Your task to perform on an android device: turn on airplane mode Image 0: 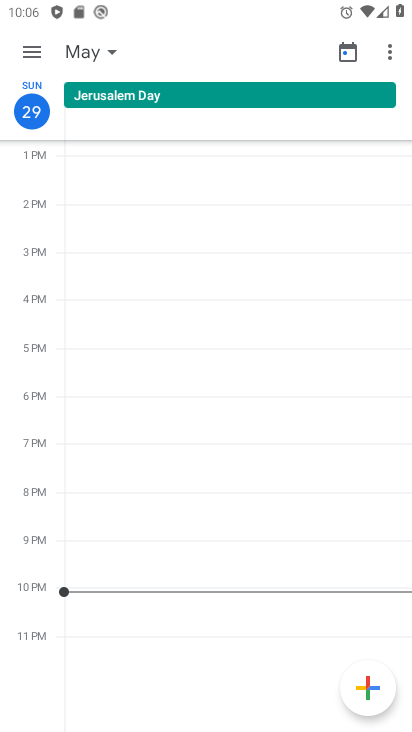
Step 0: press home button
Your task to perform on an android device: turn on airplane mode Image 1: 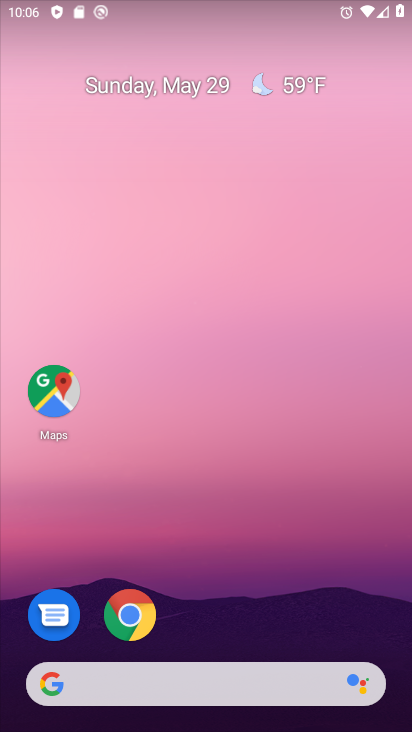
Step 1: drag from (224, 553) to (206, 193)
Your task to perform on an android device: turn on airplane mode Image 2: 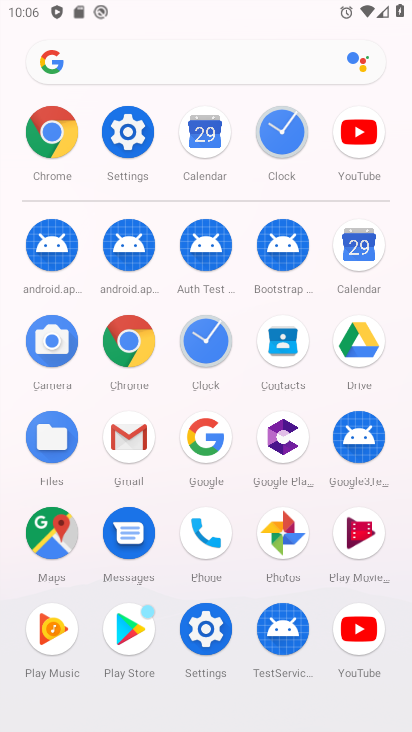
Step 2: click (131, 143)
Your task to perform on an android device: turn on airplane mode Image 3: 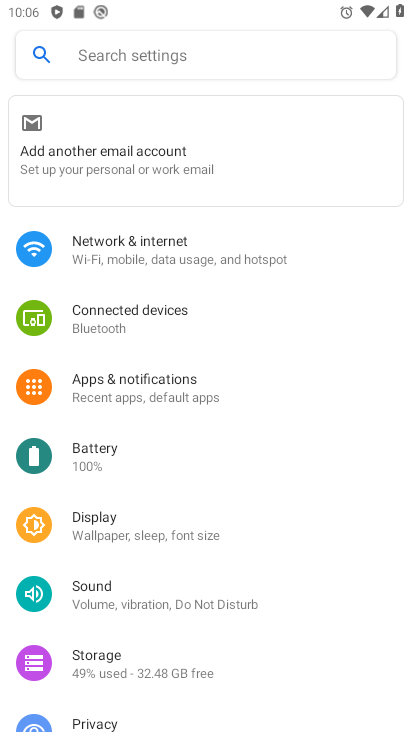
Step 3: click (127, 270)
Your task to perform on an android device: turn on airplane mode Image 4: 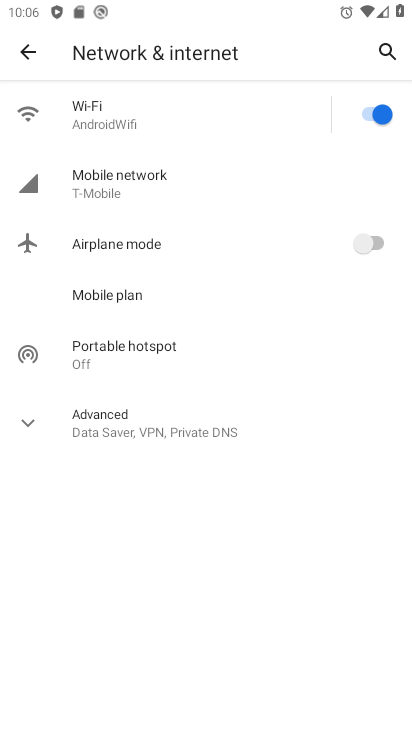
Step 4: click (364, 239)
Your task to perform on an android device: turn on airplane mode Image 5: 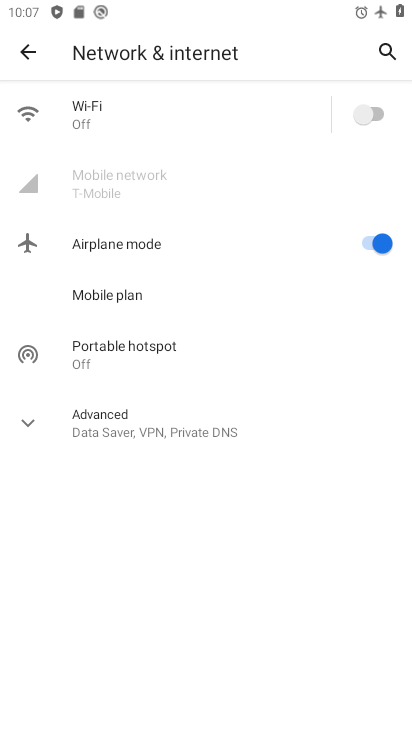
Step 5: task complete